Your task to perform on an android device: Go to Reddit.com Image 0: 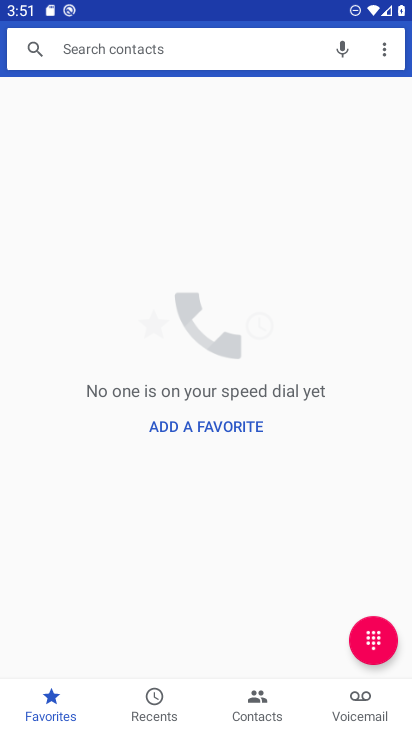
Step 0: press home button
Your task to perform on an android device: Go to Reddit.com Image 1: 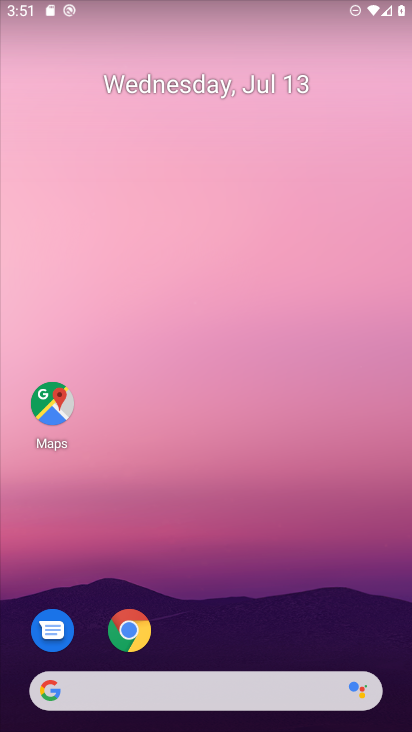
Step 1: click (125, 637)
Your task to perform on an android device: Go to Reddit.com Image 2: 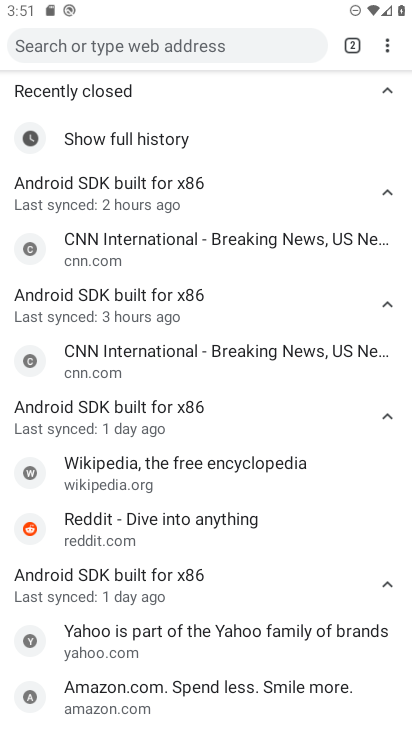
Step 2: click (172, 517)
Your task to perform on an android device: Go to Reddit.com Image 3: 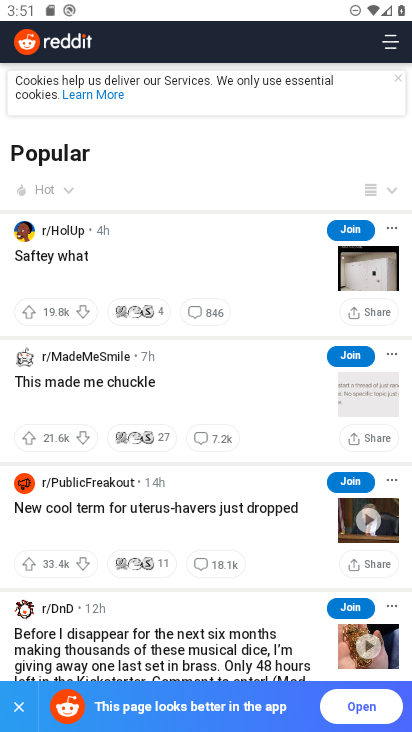
Step 3: task complete